Your task to perform on an android device: toggle improve location accuracy Image 0: 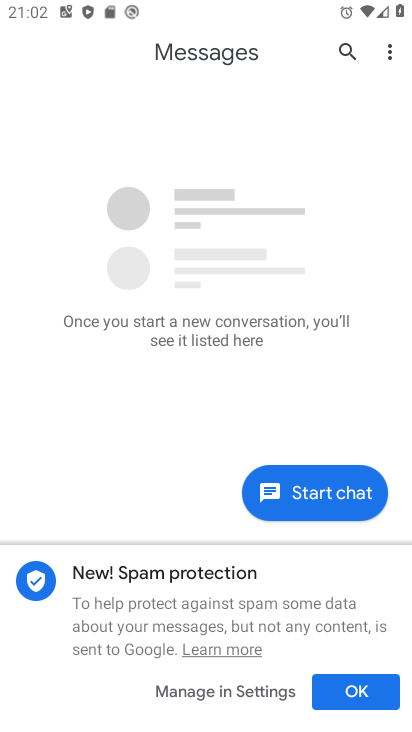
Step 0: press home button
Your task to perform on an android device: toggle improve location accuracy Image 1: 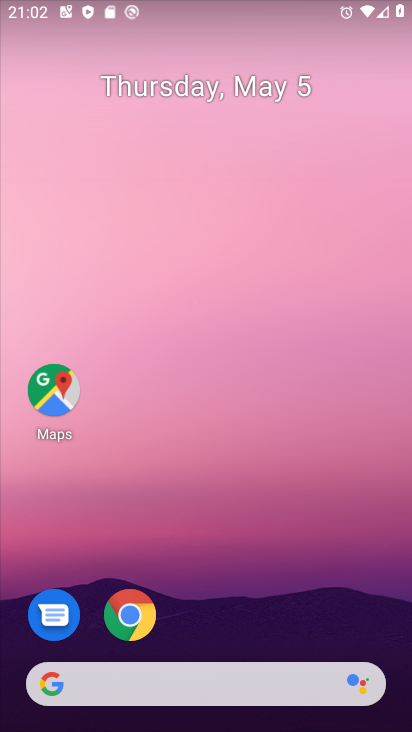
Step 1: drag from (210, 627) to (245, 264)
Your task to perform on an android device: toggle improve location accuracy Image 2: 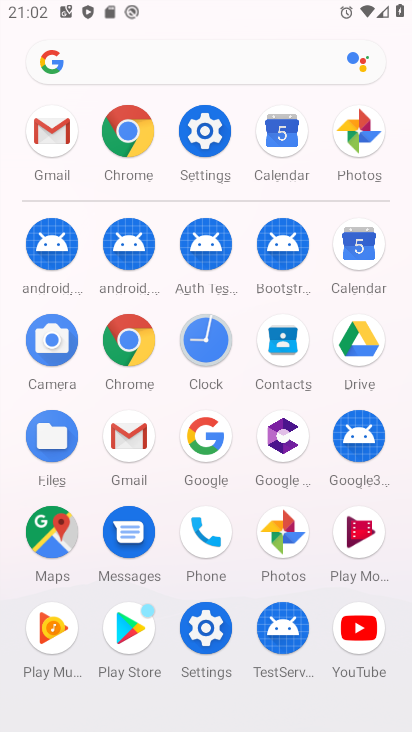
Step 2: click (199, 638)
Your task to perform on an android device: toggle improve location accuracy Image 3: 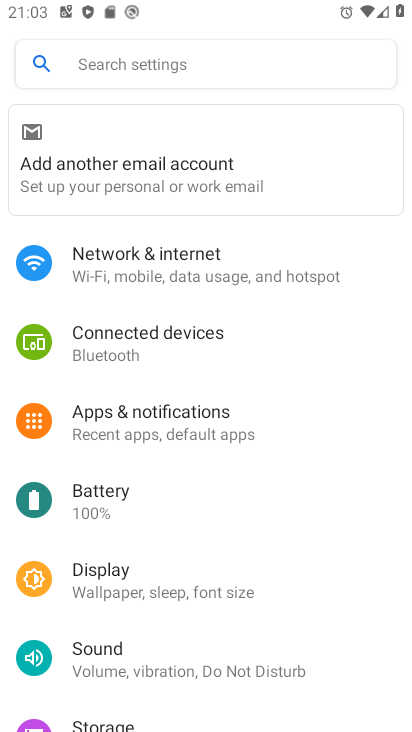
Step 3: drag from (147, 623) to (204, 270)
Your task to perform on an android device: toggle improve location accuracy Image 4: 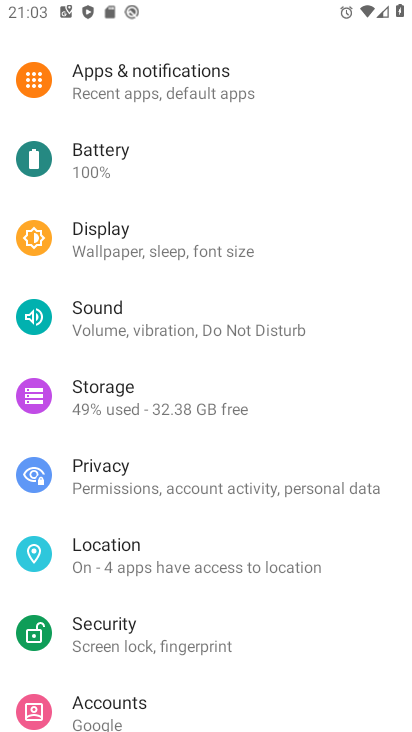
Step 4: click (139, 564)
Your task to perform on an android device: toggle improve location accuracy Image 5: 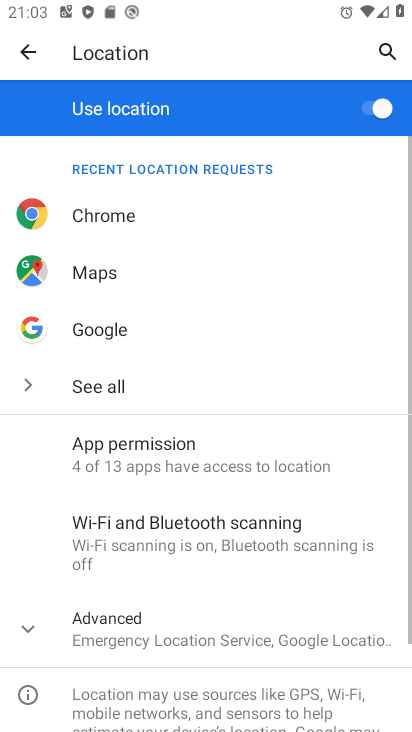
Step 5: click (161, 644)
Your task to perform on an android device: toggle improve location accuracy Image 6: 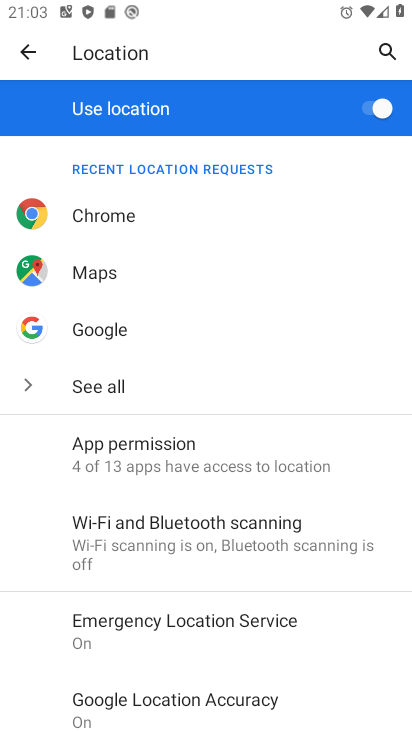
Step 6: drag from (186, 635) to (230, 325)
Your task to perform on an android device: toggle improve location accuracy Image 7: 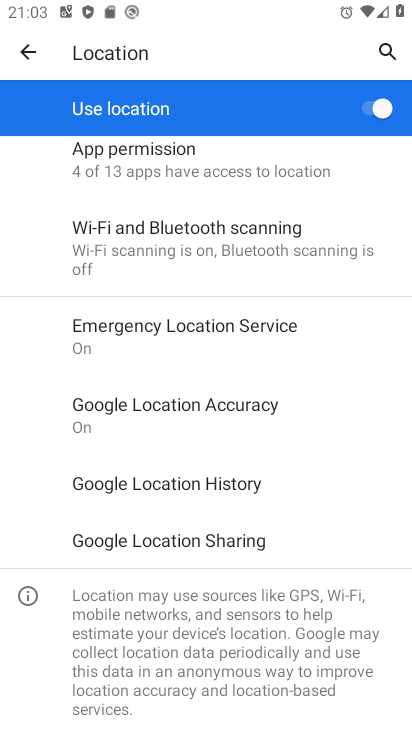
Step 7: click (199, 416)
Your task to perform on an android device: toggle improve location accuracy Image 8: 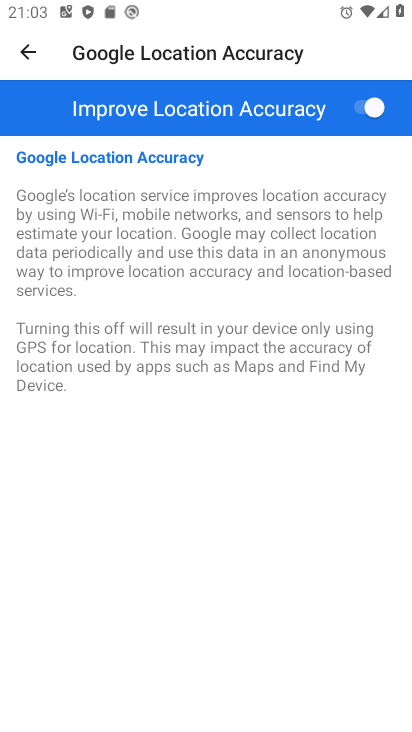
Step 8: click (353, 113)
Your task to perform on an android device: toggle improve location accuracy Image 9: 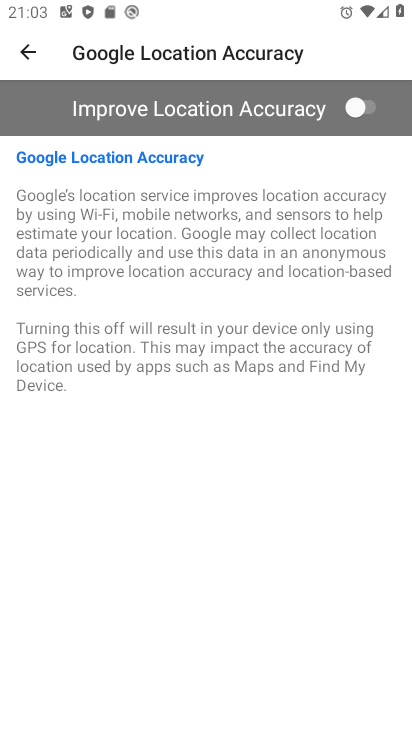
Step 9: task complete